Your task to perform on an android device: Do I have any events this weekend? Image 0: 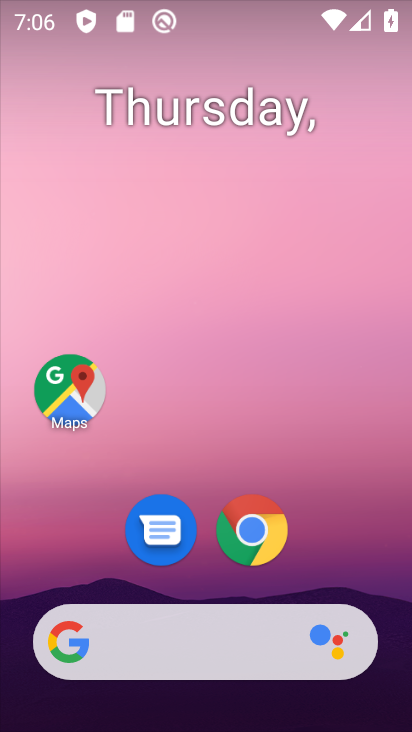
Step 0: drag from (274, 698) to (252, 254)
Your task to perform on an android device: Do I have any events this weekend? Image 1: 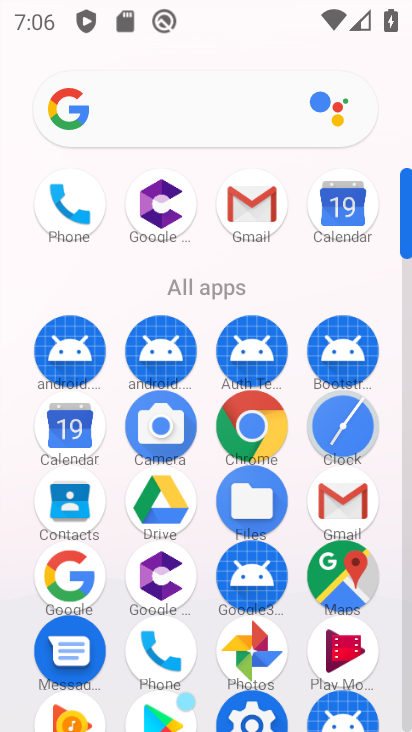
Step 1: click (56, 417)
Your task to perform on an android device: Do I have any events this weekend? Image 2: 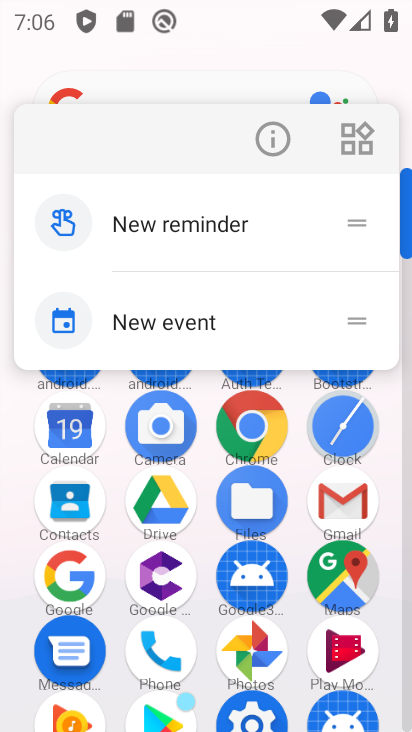
Step 2: click (77, 450)
Your task to perform on an android device: Do I have any events this weekend? Image 3: 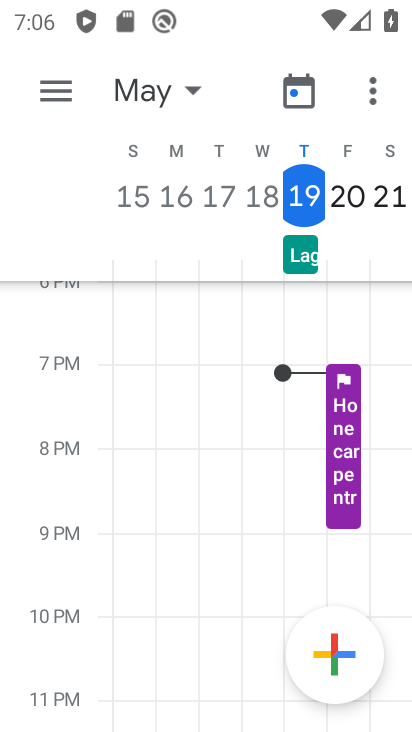
Step 3: click (42, 83)
Your task to perform on an android device: Do I have any events this weekend? Image 4: 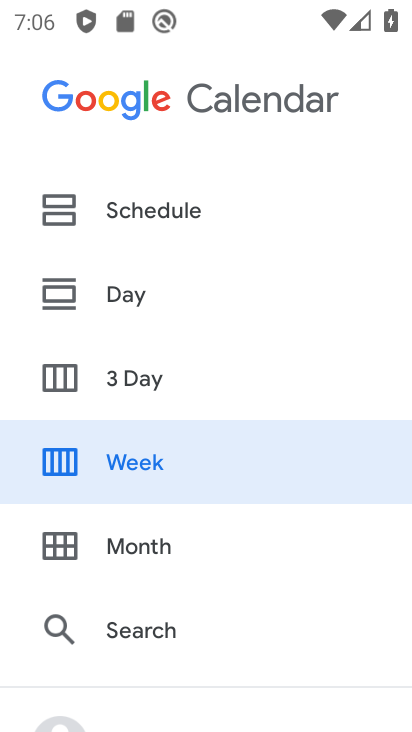
Step 4: click (147, 478)
Your task to perform on an android device: Do I have any events this weekend? Image 5: 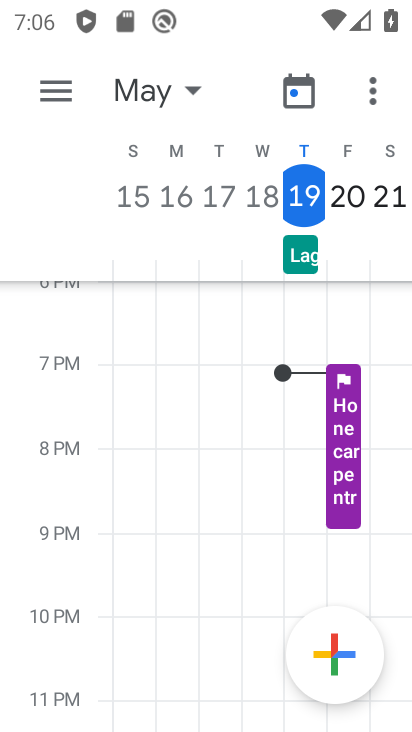
Step 5: task complete